Your task to perform on an android device: Go to privacy settings Image 0: 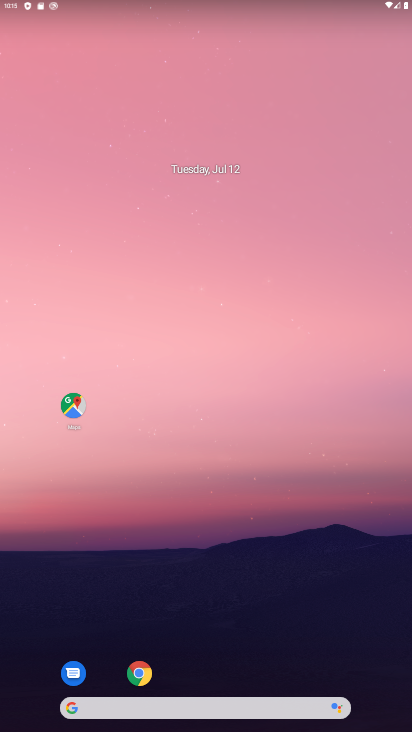
Step 0: drag from (218, 677) to (252, 272)
Your task to perform on an android device: Go to privacy settings Image 1: 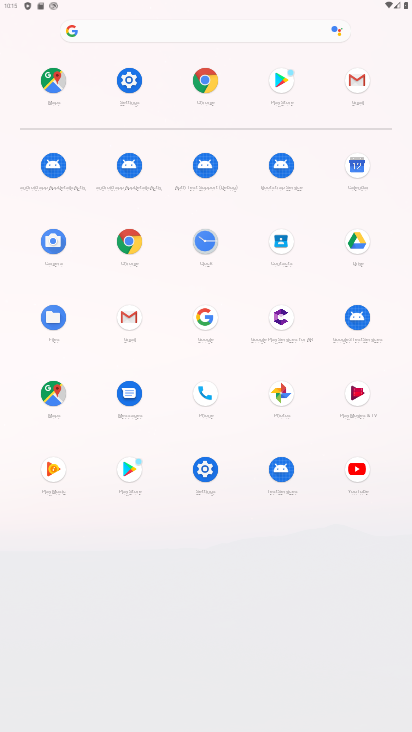
Step 1: click (122, 79)
Your task to perform on an android device: Go to privacy settings Image 2: 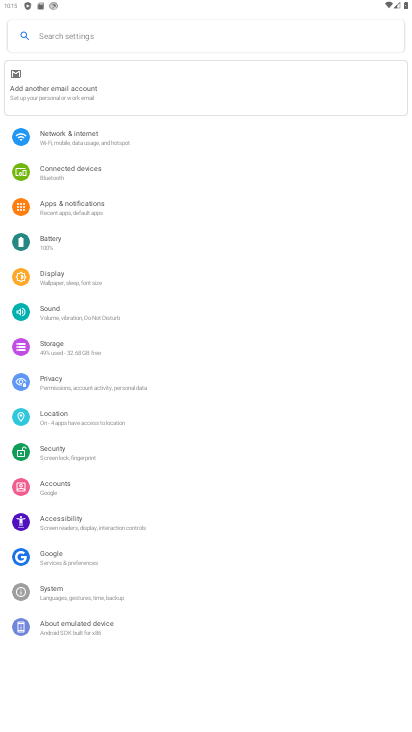
Step 2: click (62, 385)
Your task to perform on an android device: Go to privacy settings Image 3: 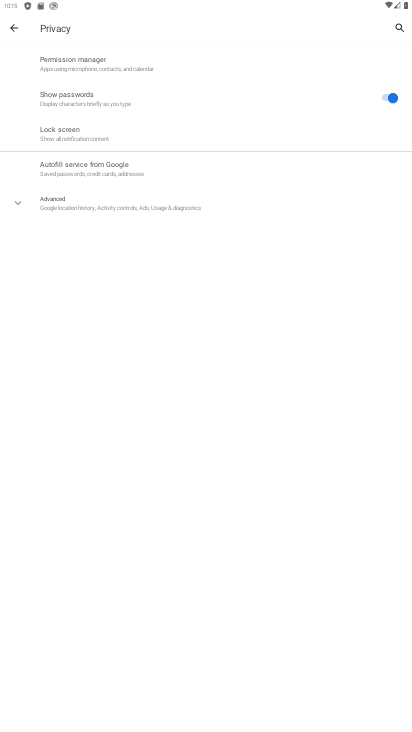
Step 3: task complete